Your task to perform on an android device: Open location settings Image 0: 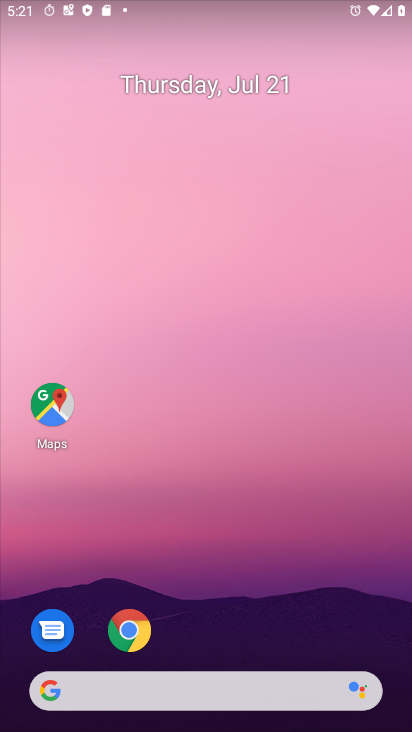
Step 0: drag from (207, 687) to (289, 129)
Your task to perform on an android device: Open location settings Image 1: 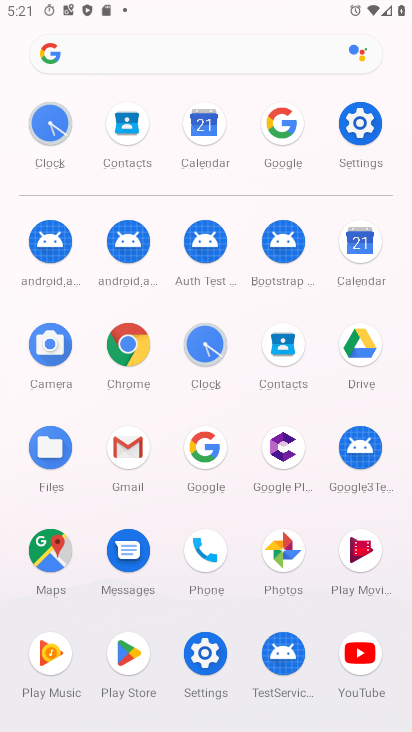
Step 1: click (359, 121)
Your task to perform on an android device: Open location settings Image 2: 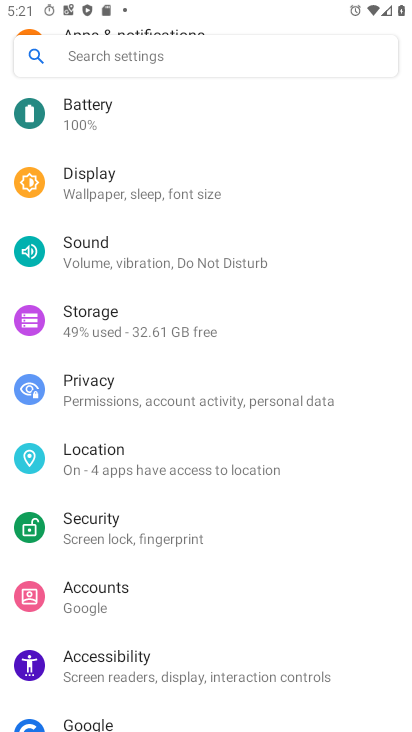
Step 2: click (98, 460)
Your task to perform on an android device: Open location settings Image 3: 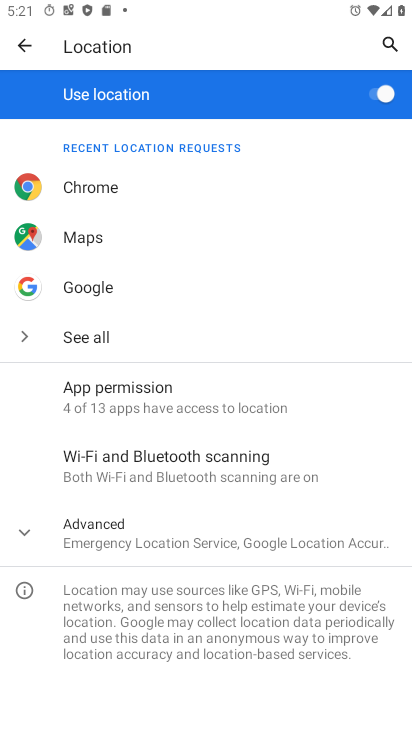
Step 3: task complete